Your task to perform on an android device: What is the news today? Image 0: 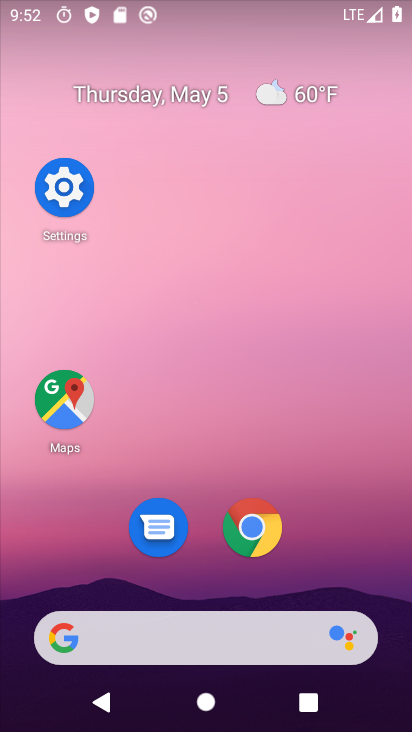
Step 0: drag from (299, 593) to (292, 204)
Your task to perform on an android device: What is the news today? Image 1: 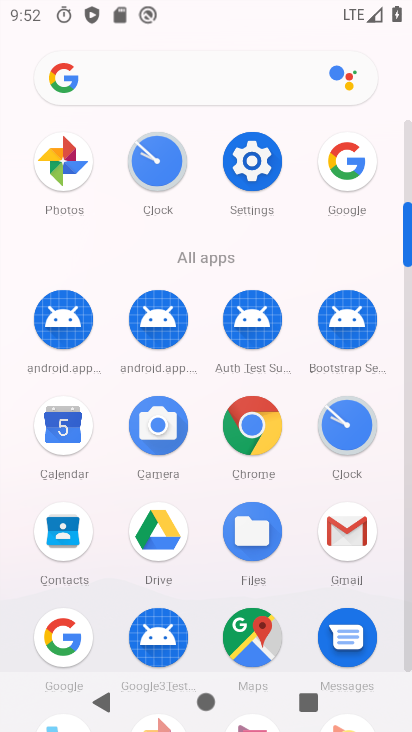
Step 1: click (251, 446)
Your task to perform on an android device: What is the news today? Image 2: 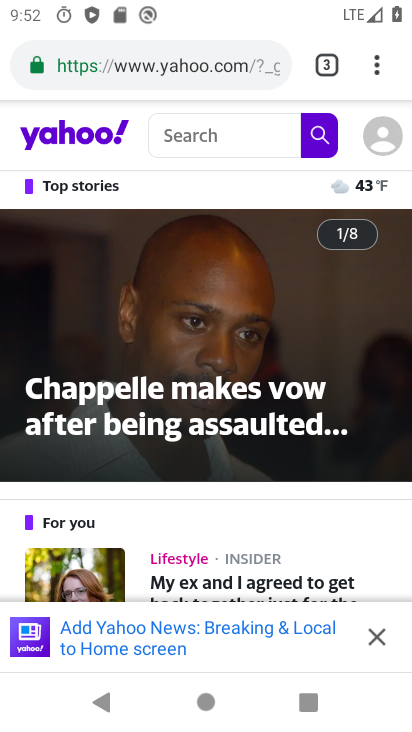
Step 2: click (324, 72)
Your task to perform on an android device: What is the news today? Image 3: 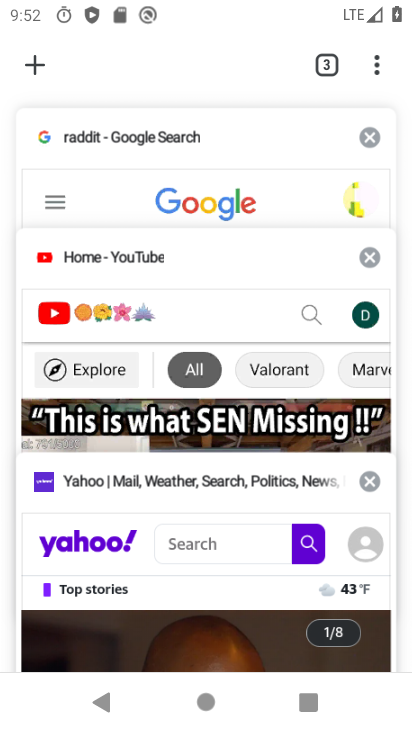
Step 3: click (39, 71)
Your task to perform on an android device: What is the news today? Image 4: 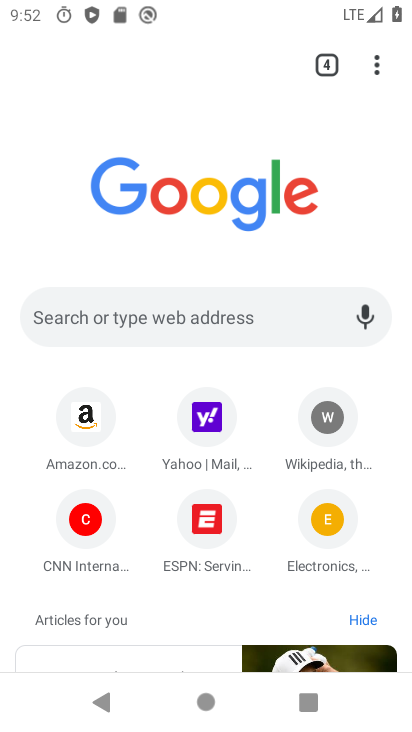
Step 4: click (212, 303)
Your task to perform on an android device: What is the news today? Image 5: 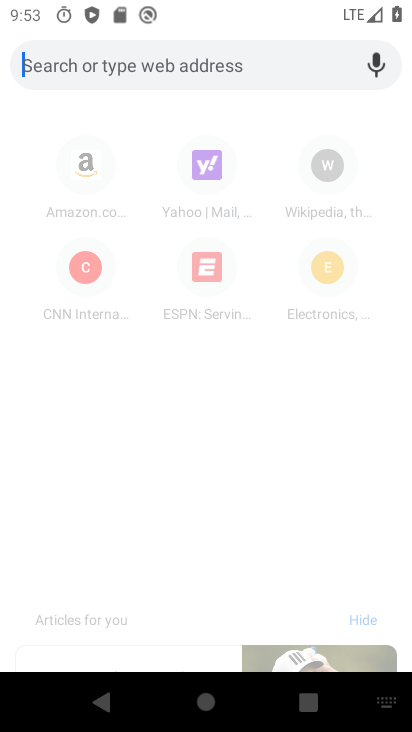
Step 5: type "news"
Your task to perform on an android device: What is the news today? Image 6: 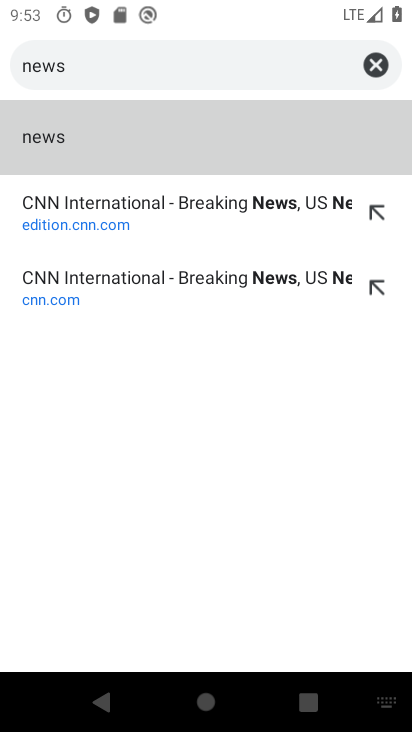
Step 6: click (96, 133)
Your task to perform on an android device: What is the news today? Image 7: 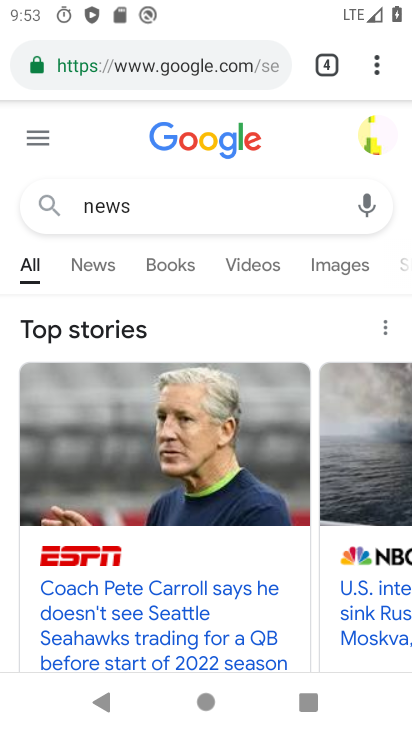
Step 7: task complete